Your task to perform on an android device: When is my next meeting? Image 0: 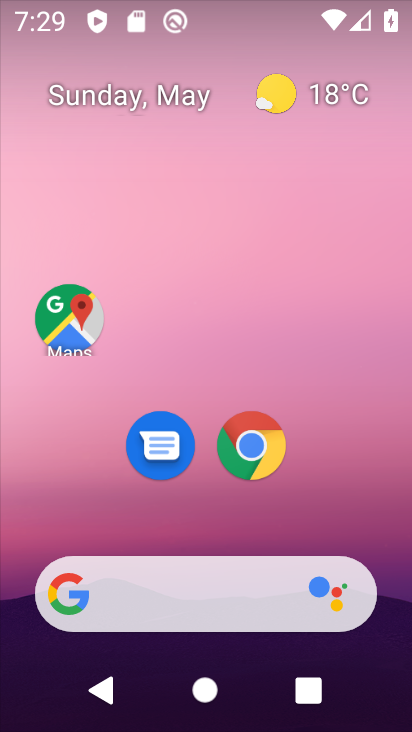
Step 0: drag from (261, 711) to (231, 247)
Your task to perform on an android device: When is my next meeting? Image 1: 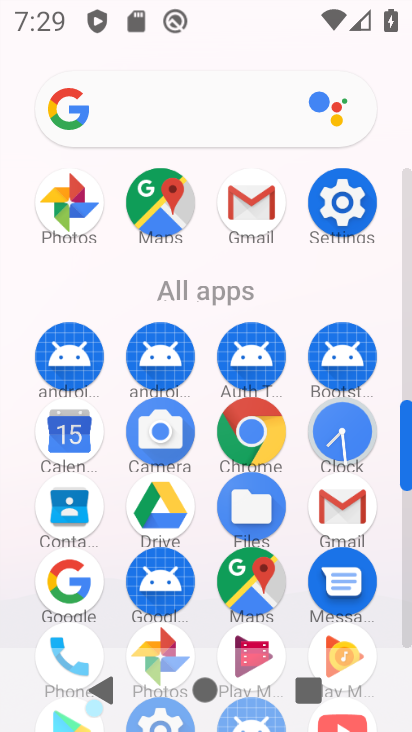
Step 1: drag from (293, 599) to (288, 357)
Your task to perform on an android device: When is my next meeting? Image 2: 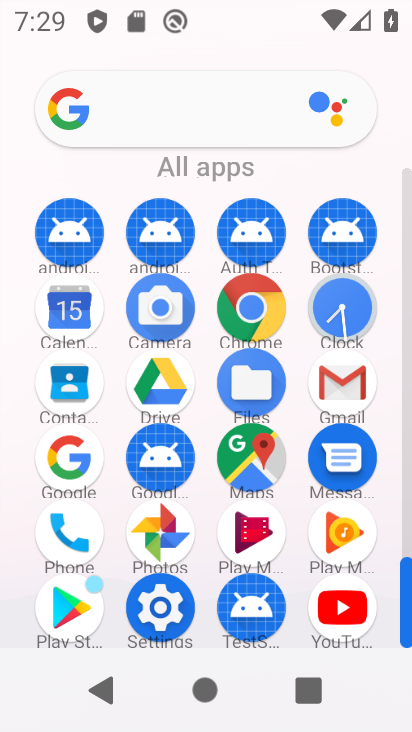
Step 2: click (85, 323)
Your task to perform on an android device: When is my next meeting? Image 3: 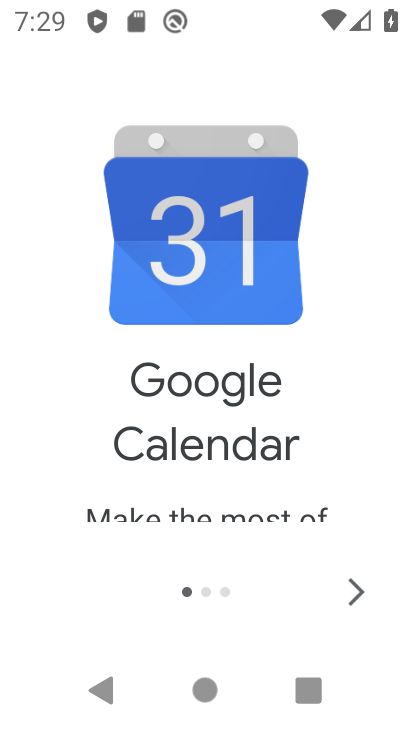
Step 3: click (354, 593)
Your task to perform on an android device: When is my next meeting? Image 4: 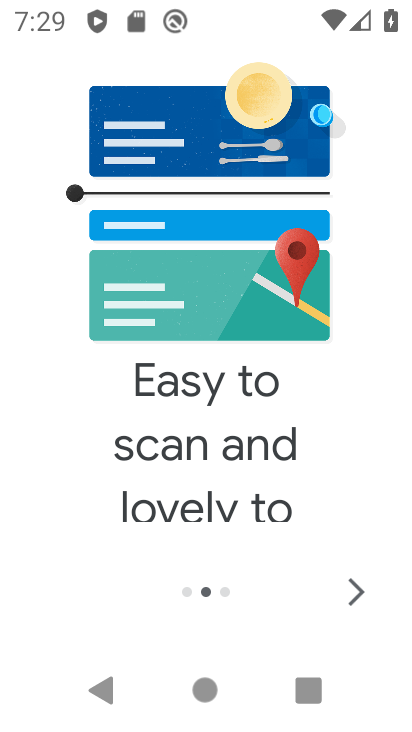
Step 4: click (354, 593)
Your task to perform on an android device: When is my next meeting? Image 5: 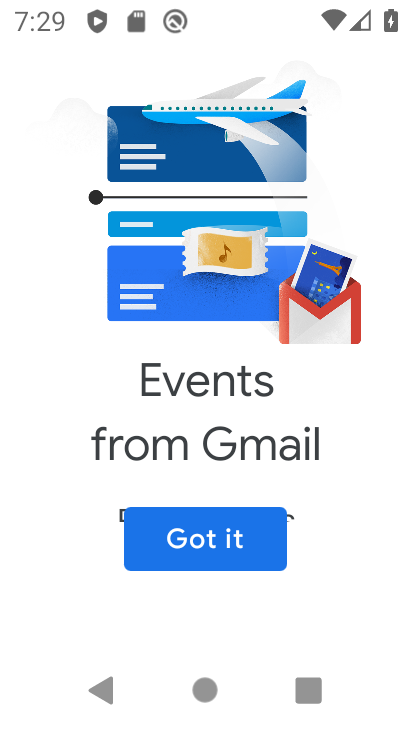
Step 5: click (227, 558)
Your task to perform on an android device: When is my next meeting? Image 6: 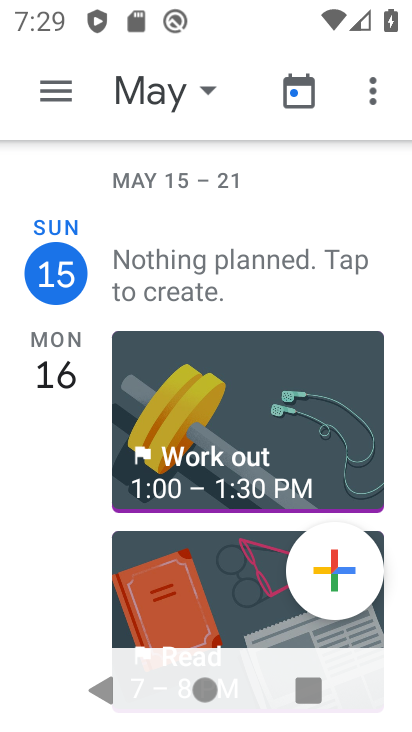
Step 6: task complete